Your task to perform on an android device: Search for top rated pizza restaurants on Maps Image 0: 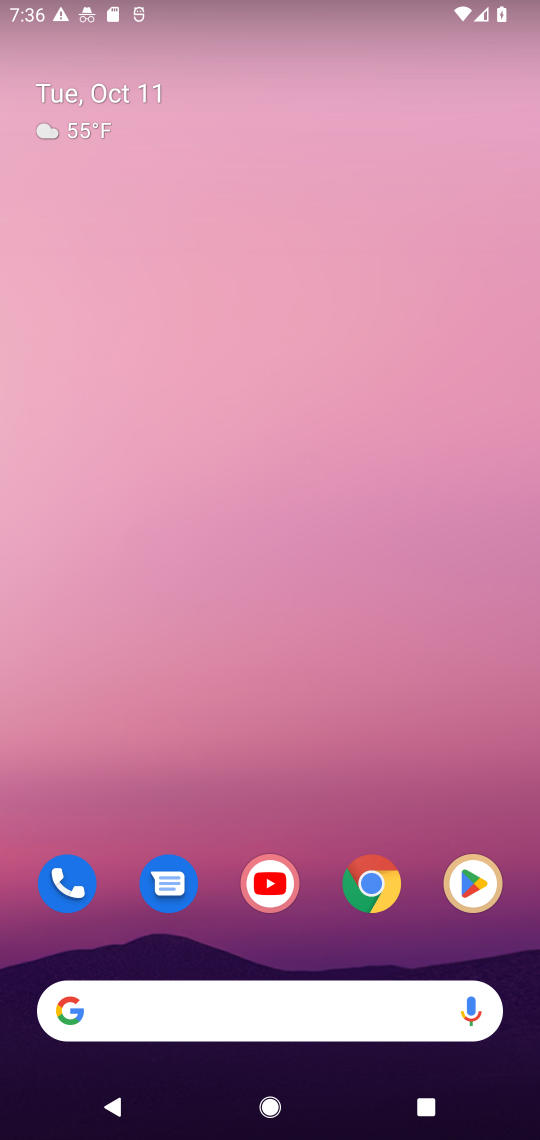
Step 0: drag from (318, 946) to (250, 78)
Your task to perform on an android device: Search for top rated pizza restaurants on Maps Image 1: 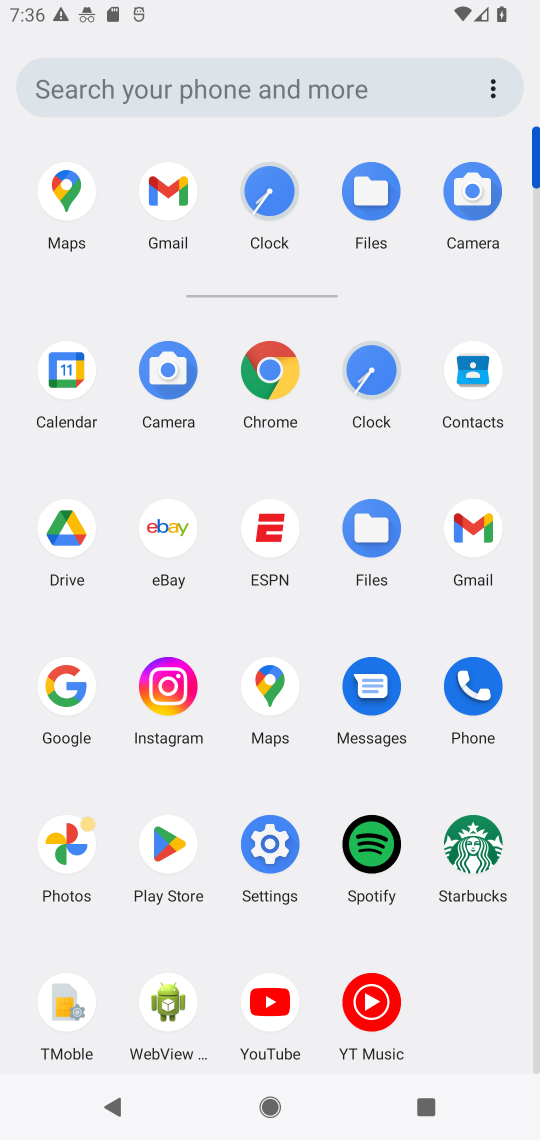
Step 1: click (283, 686)
Your task to perform on an android device: Search for top rated pizza restaurants on Maps Image 2: 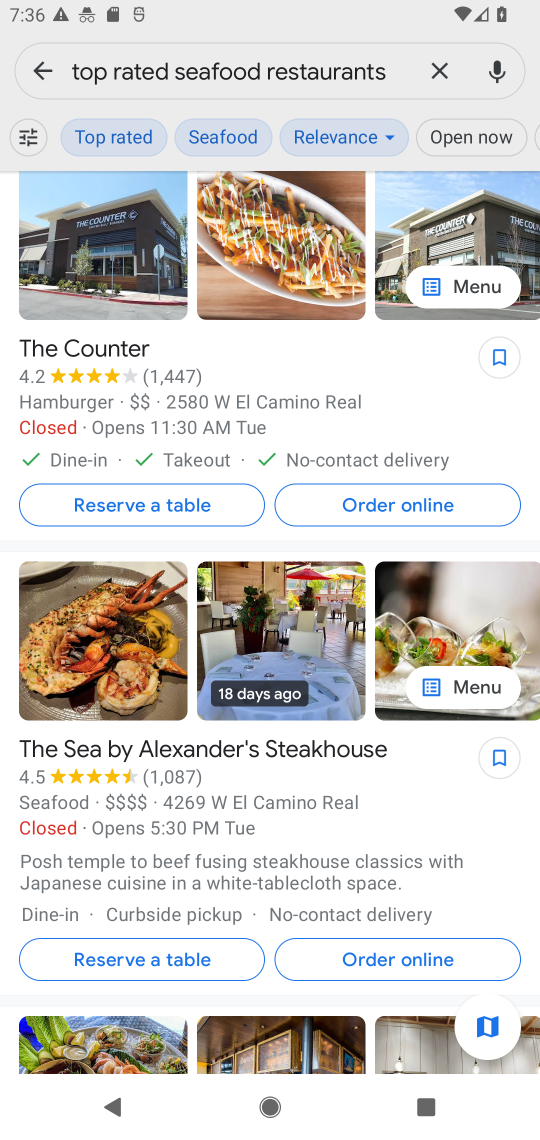
Step 2: click (253, 79)
Your task to perform on an android device: Search for top rated pizza restaurants on Maps Image 3: 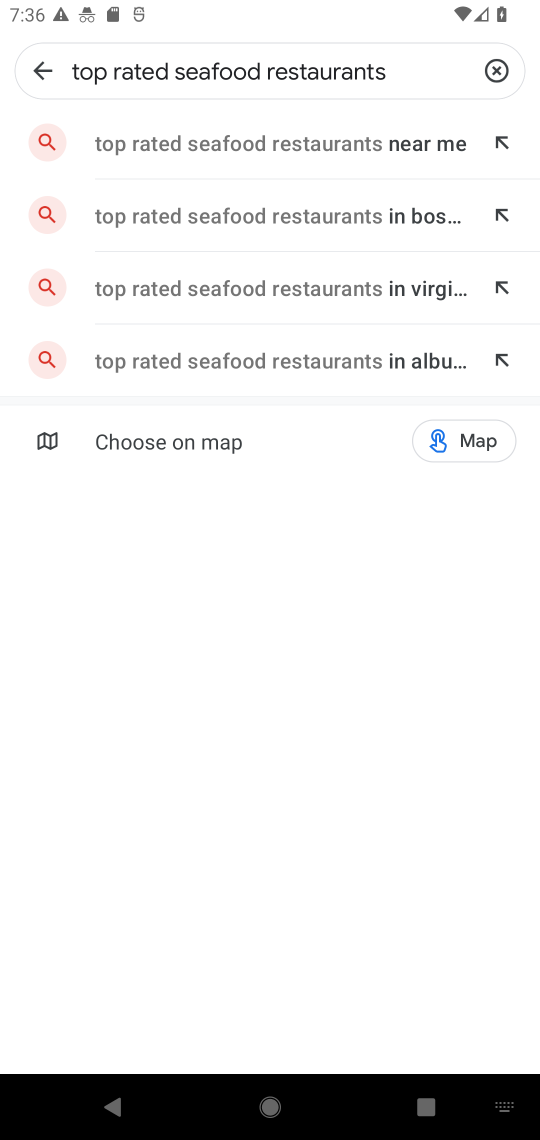
Step 3: click (489, 76)
Your task to perform on an android device: Search for top rated pizza restaurants on Maps Image 4: 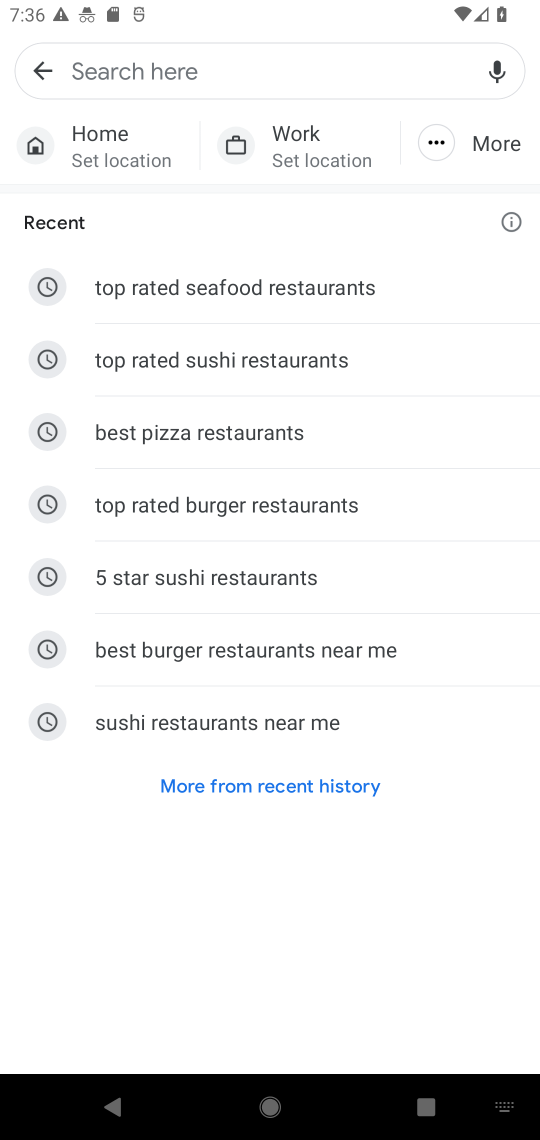
Step 4: type "top rated pizza restaurants on Maps"
Your task to perform on an android device: Search for top rated pizza restaurants on Maps Image 5: 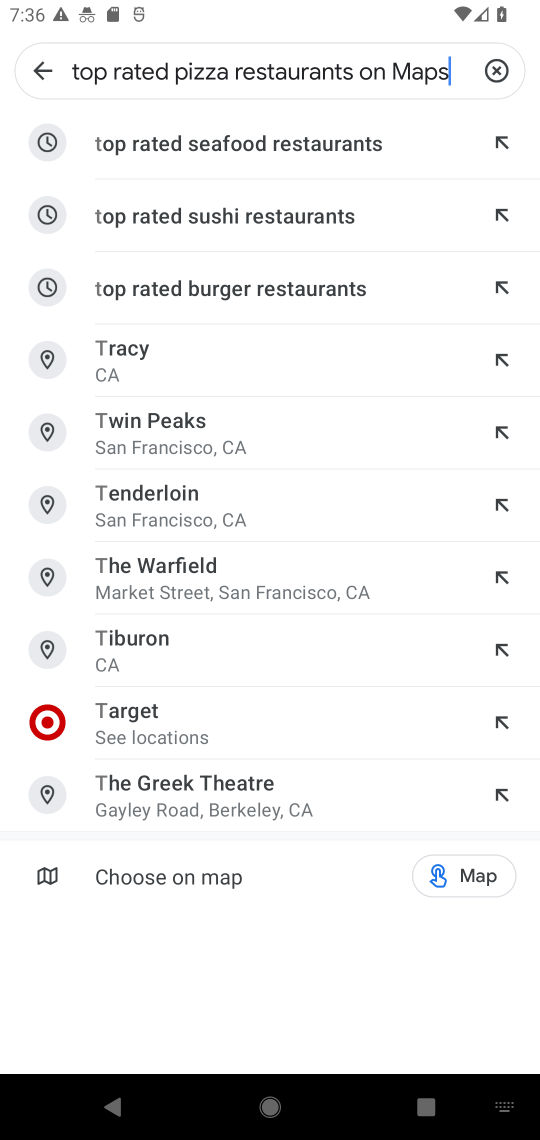
Step 5: press enter
Your task to perform on an android device: Search for top rated pizza restaurants on Maps Image 6: 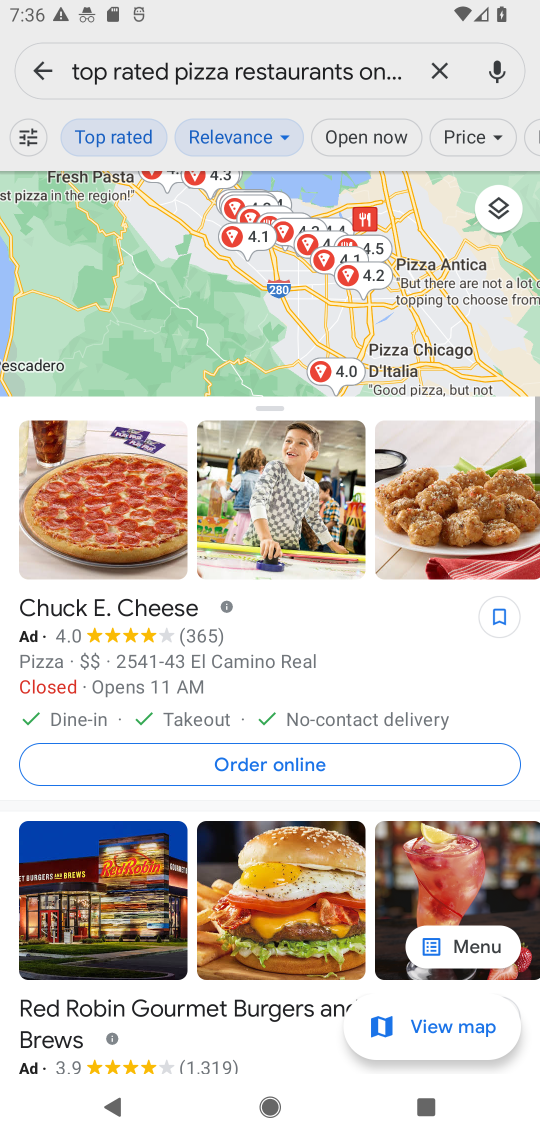
Step 6: task complete